Your task to perform on an android device: delete the emails in spam in the gmail app Image 0: 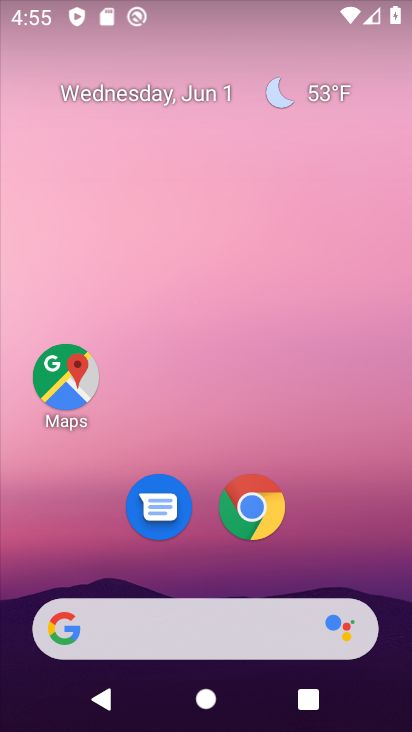
Step 0: drag from (347, 523) to (365, 161)
Your task to perform on an android device: delete the emails in spam in the gmail app Image 1: 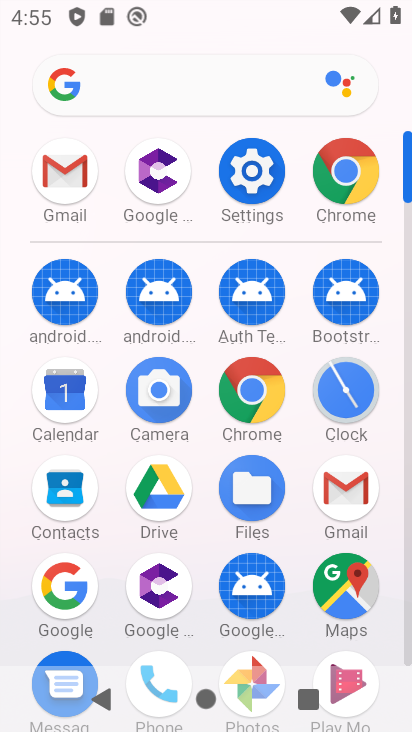
Step 1: click (70, 169)
Your task to perform on an android device: delete the emails in spam in the gmail app Image 2: 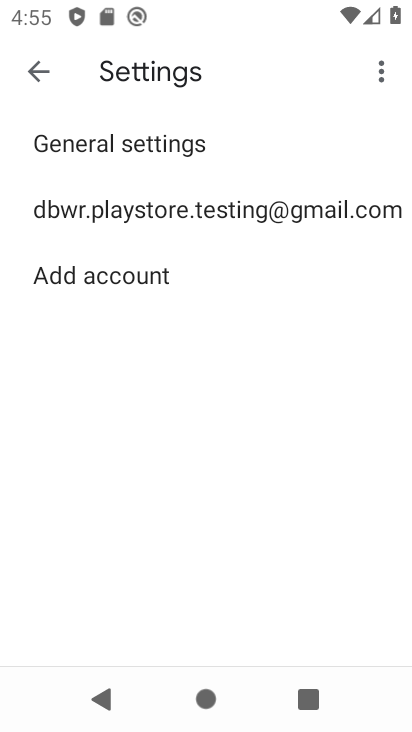
Step 2: click (50, 90)
Your task to perform on an android device: delete the emails in spam in the gmail app Image 3: 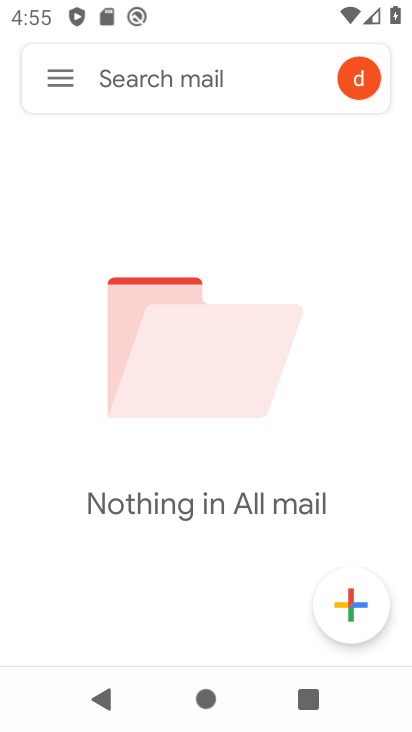
Step 3: click (46, 85)
Your task to perform on an android device: delete the emails in spam in the gmail app Image 4: 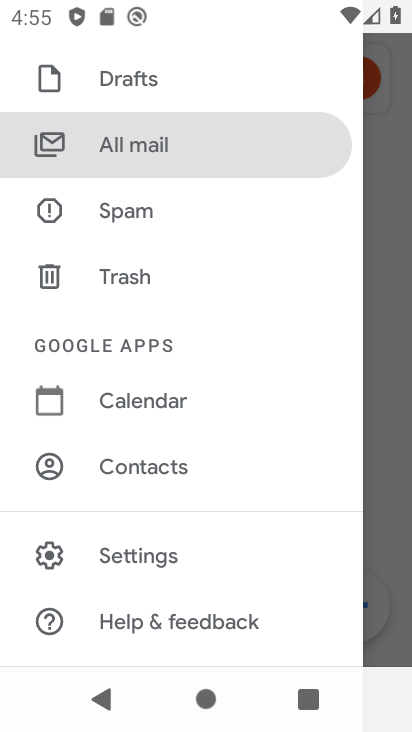
Step 4: click (112, 228)
Your task to perform on an android device: delete the emails in spam in the gmail app Image 5: 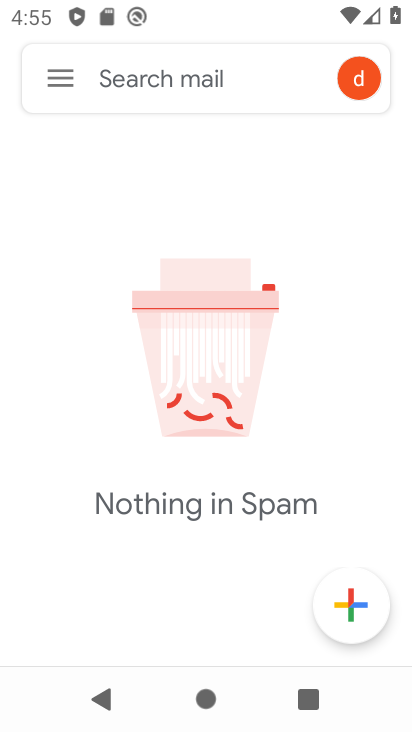
Step 5: task complete